Your task to perform on an android device: Go to wifi settings Image 0: 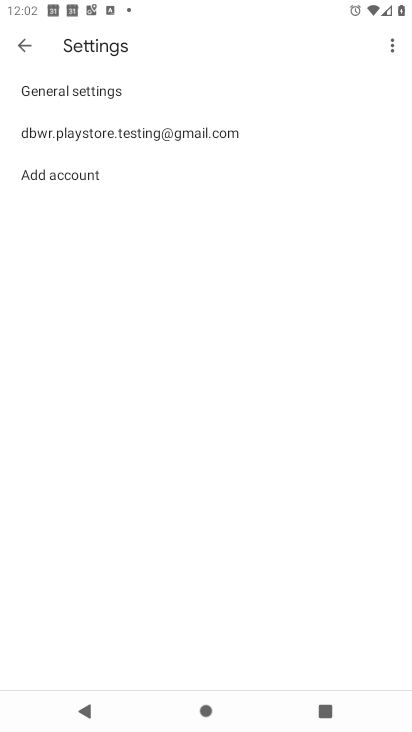
Step 0: press home button
Your task to perform on an android device: Go to wifi settings Image 1: 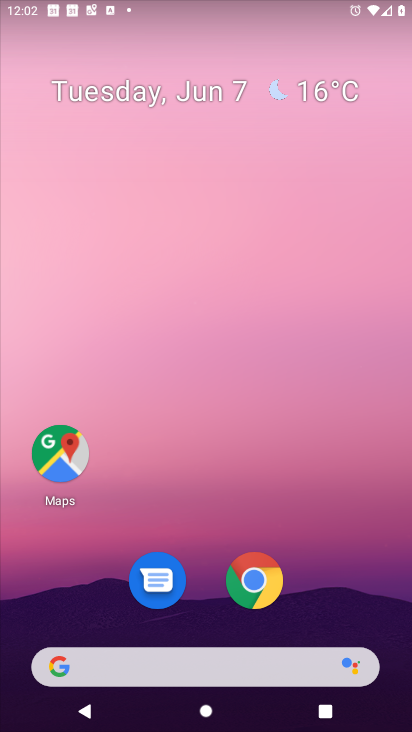
Step 1: drag from (366, 556) to (392, 2)
Your task to perform on an android device: Go to wifi settings Image 2: 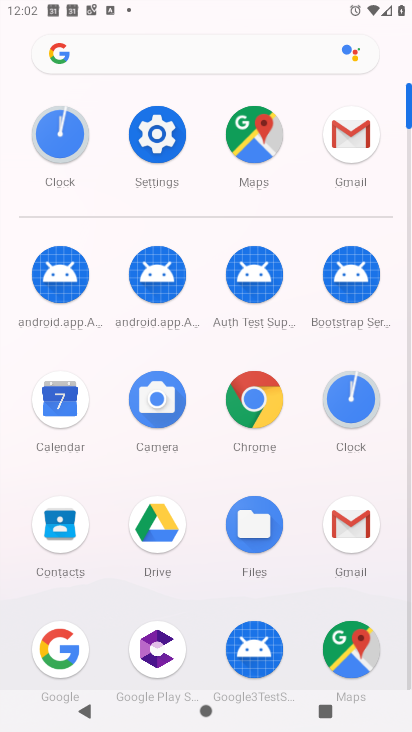
Step 2: click (175, 153)
Your task to perform on an android device: Go to wifi settings Image 3: 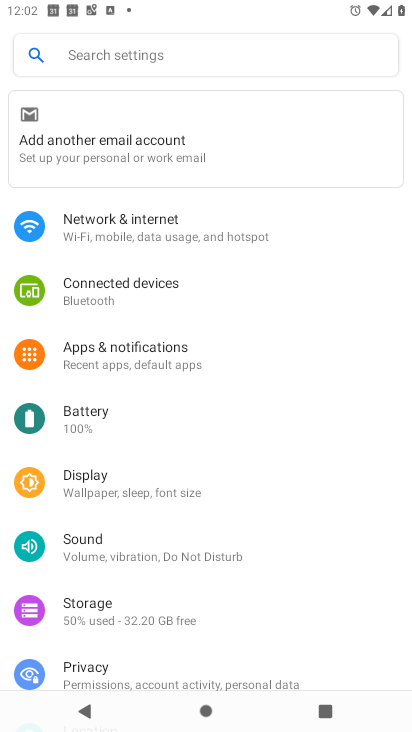
Step 3: click (124, 222)
Your task to perform on an android device: Go to wifi settings Image 4: 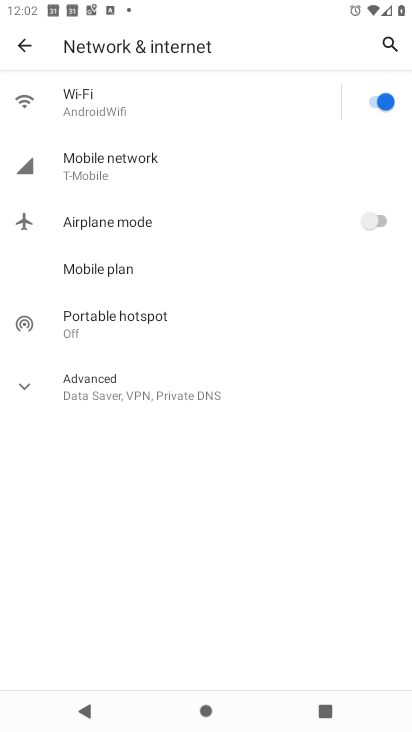
Step 4: click (82, 104)
Your task to perform on an android device: Go to wifi settings Image 5: 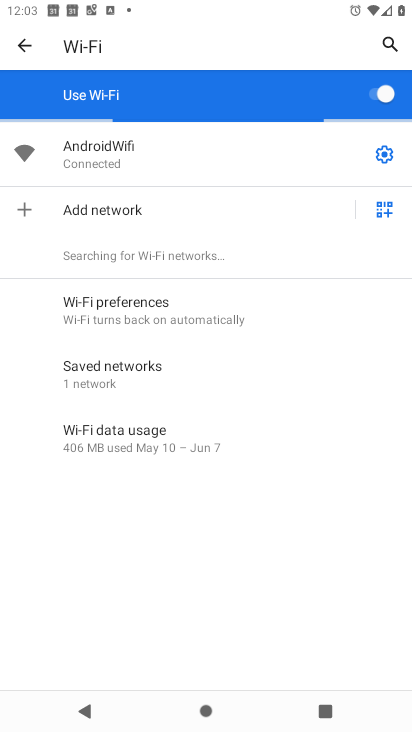
Step 5: task complete